Your task to perform on an android device: clear all cookies in the chrome app Image 0: 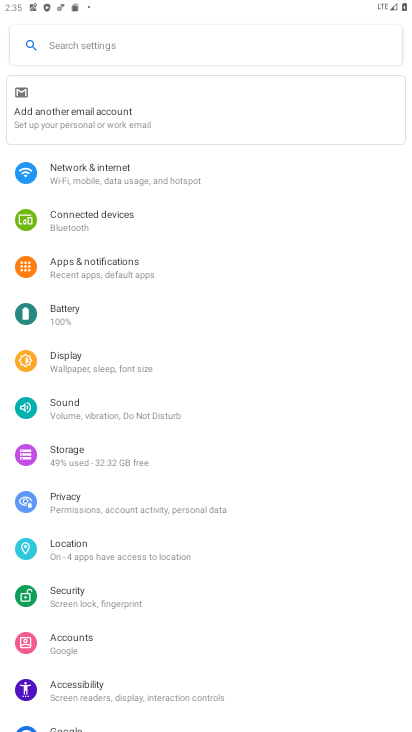
Step 0: press home button
Your task to perform on an android device: clear all cookies in the chrome app Image 1: 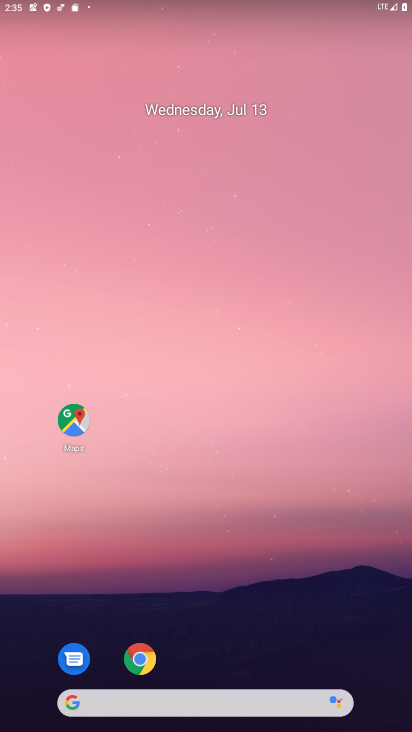
Step 1: click (141, 660)
Your task to perform on an android device: clear all cookies in the chrome app Image 2: 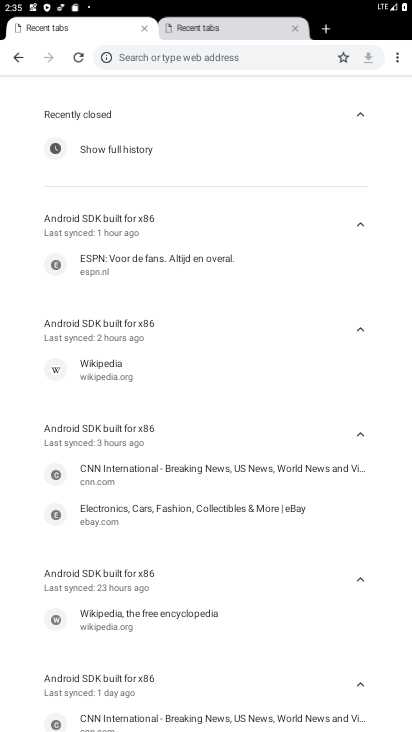
Step 2: click (394, 56)
Your task to perform on an android device: clear all cookies in the chrome app Image 3: 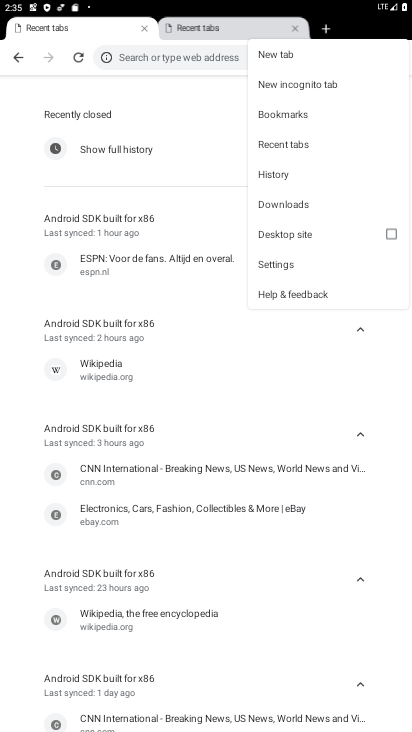
Step 3: click (269, 173)
Your task to perform on an android device: clear all cookies in the chrome app Image 4: 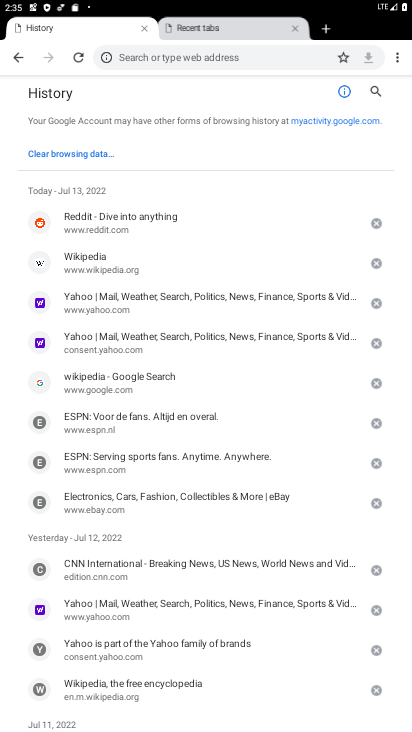
Step 4: click (72, 155)
Your task to perform on an android device: clear all cookies in the chrome app Image 5: 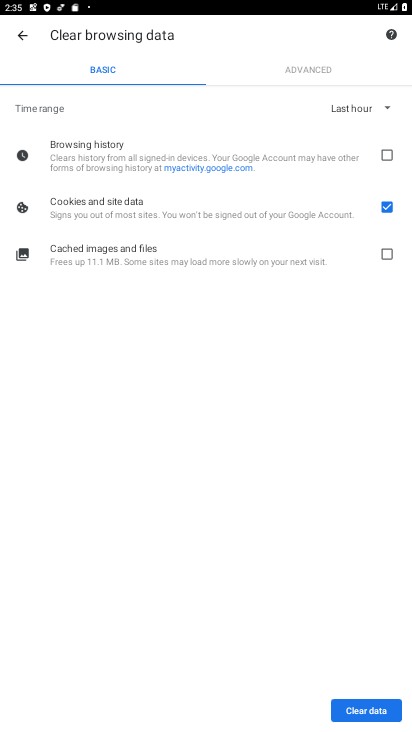
Step 5: click (364, 711)
Your task to perform on an android device: clear all cookies in the chrome app Image 6: 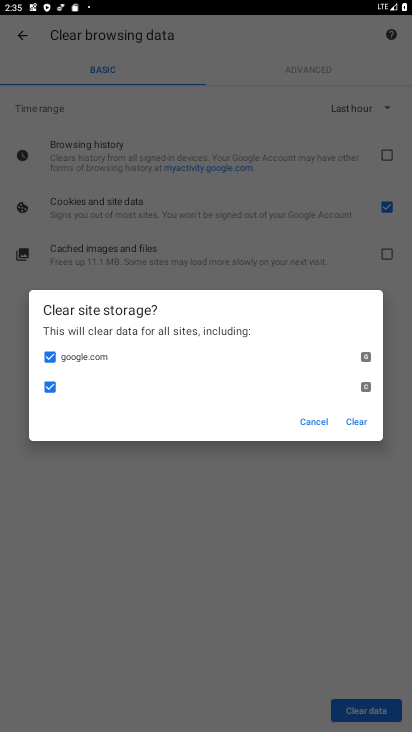
Step 6: click (357, 420)
Your task to perform on an android device: clear all cookies in the chrome app Image 7: 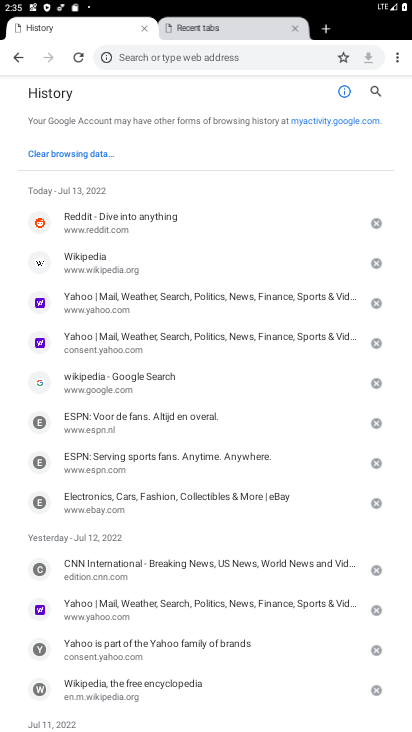
Step 7: task complete